Your task to perform on an android device: turn on airplane mode Image 0: 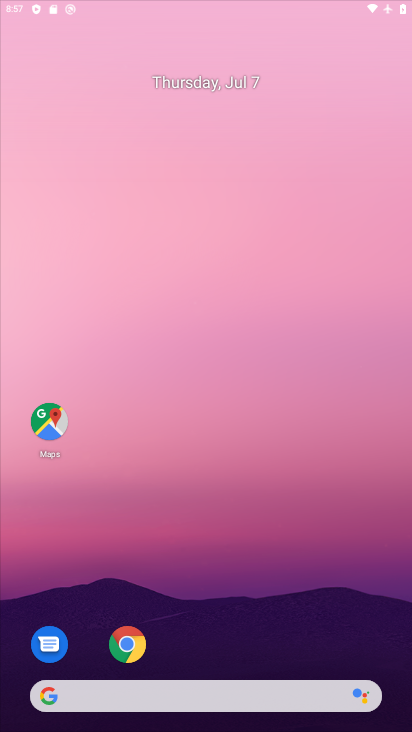
Step 0: click (167, 127)
Your task to perform on an android device: turn on airplane mode Image 1: 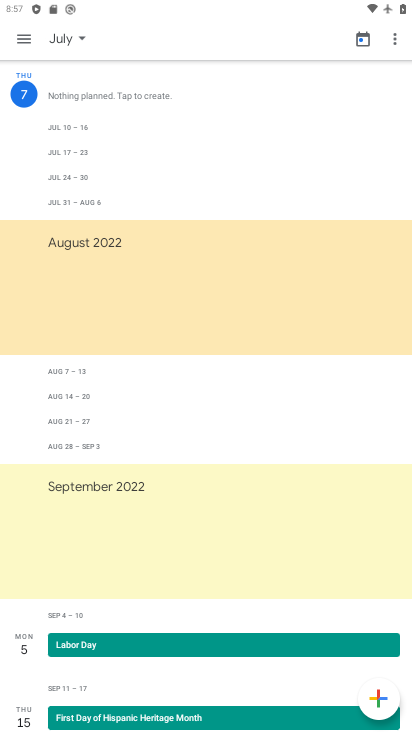
Step 1: press back button
Your task to perform on an android device: turn on airplane mode Image 2: 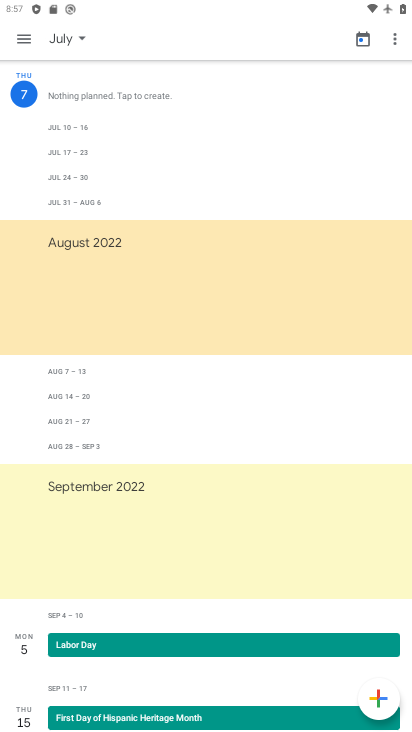
Step 2: press back button
Your task to perform on an android device: turn on airplane mode Image 3: 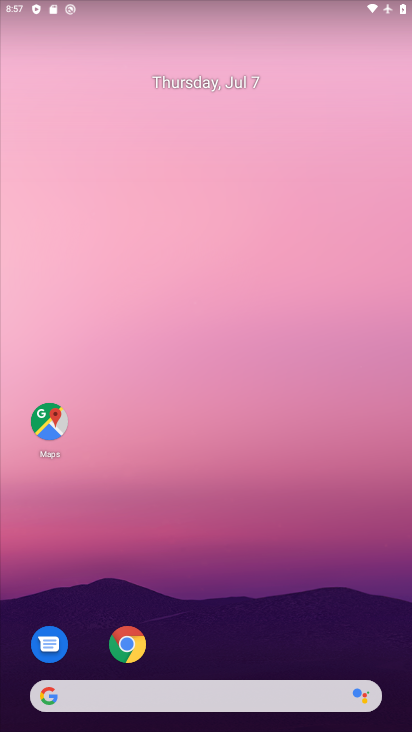
Step 3: drag from (255, 675) to (188, 197)
Your task to perform on an android device: turn on airplane mode Image 4: 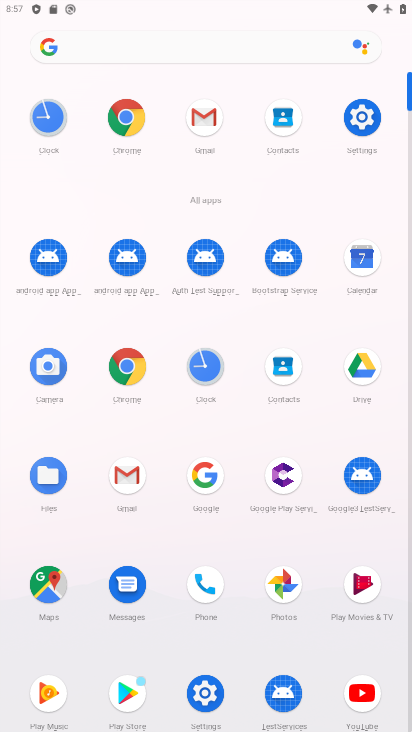
Step 4: click (364, 125)
Your task to perform on an android device: turn on airplane mode Image 5: 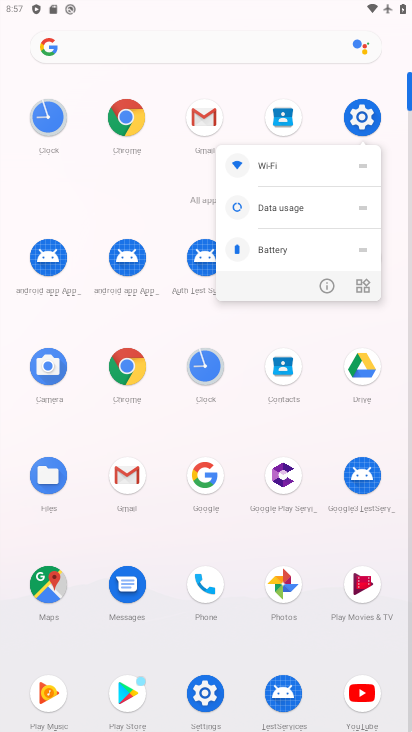
Step 5: click (359, 125)
Your task to perform on an android device: turn on airplane mode Image 6: 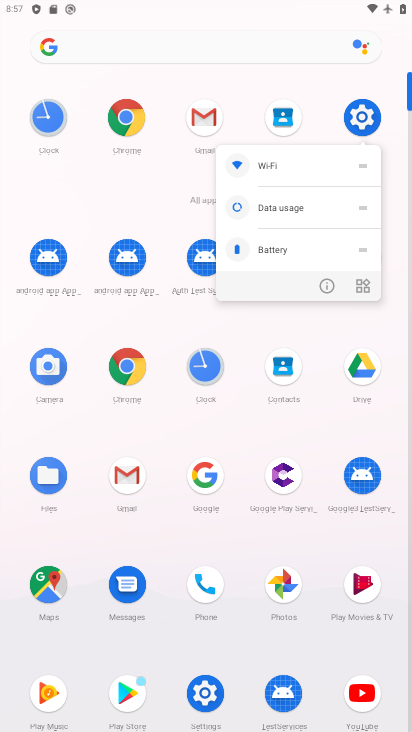
Step 6: click (359, 125)
Your task to perform on an android device: turn on airplane mode Image 7: 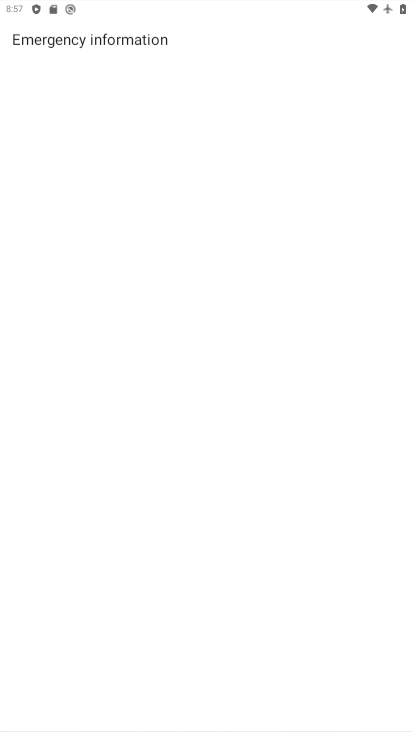
Step 7: click (358, 114)
Your task to perform on an android device: turn on airplane mode Image 8: 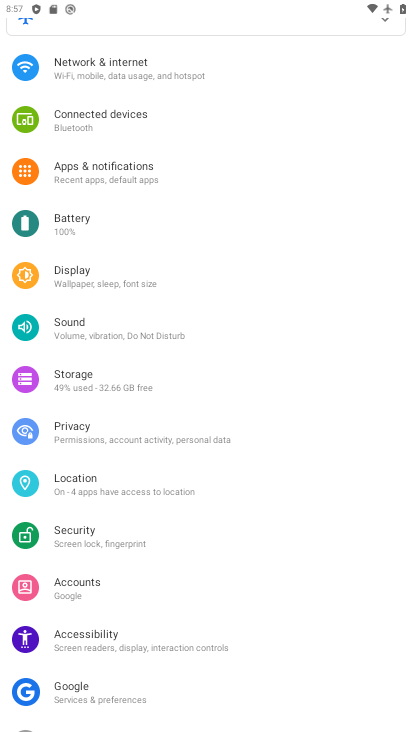
Step 8: click (358, 113)
Your task to perform on an android device: turn on airplane mode Image 9: 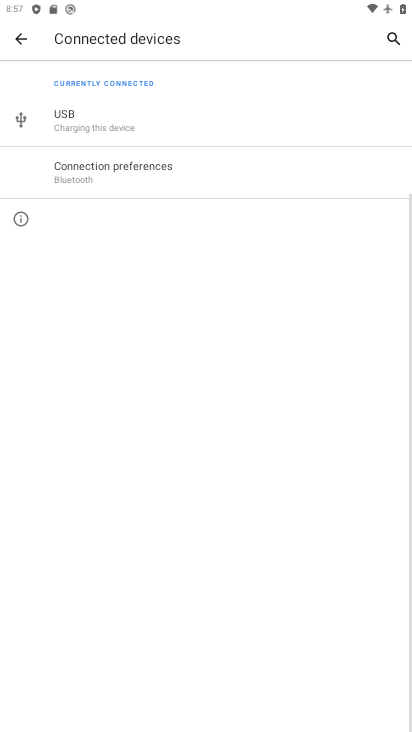
Step 9: click (20, 37)
Your task to perform on an android device: turn on airplane mode Image 10: 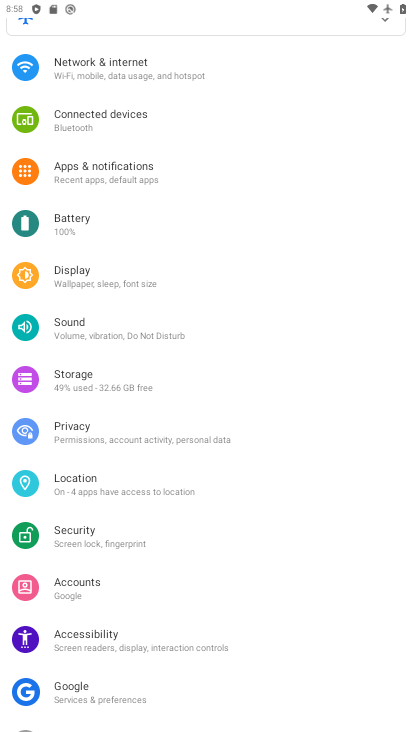
Step 10: click (117, 71)
Your task to perform on an android device: turn on airplane mode Image 11: 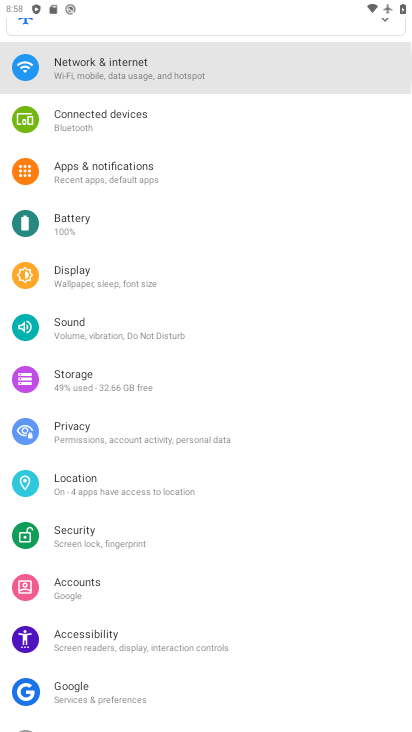
Step 11: click (117, 71)
Your task to perform on an android device: turn on airplane mode Image 12: 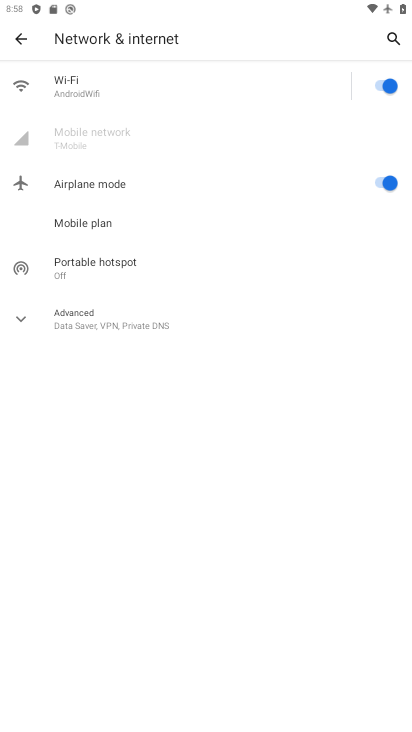
Step 12: task complete